Your task to perform on an android device: delete browsing data in the chrome app Image 0: 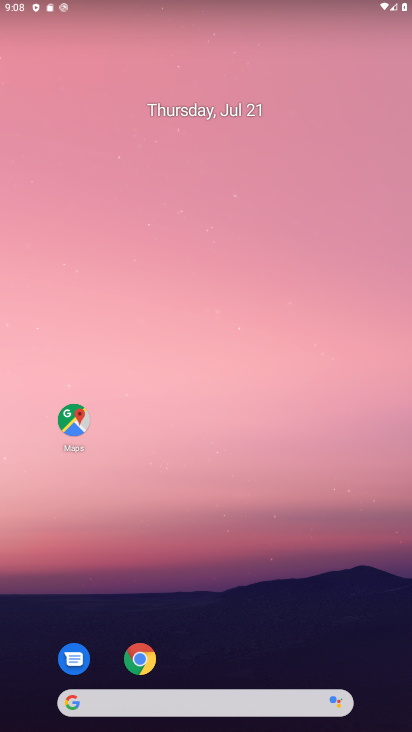
Step 0: drag from (237, 660) to (126, 50)
Your task to perform on an android device: delete browsing data in the chrome app Image 1: 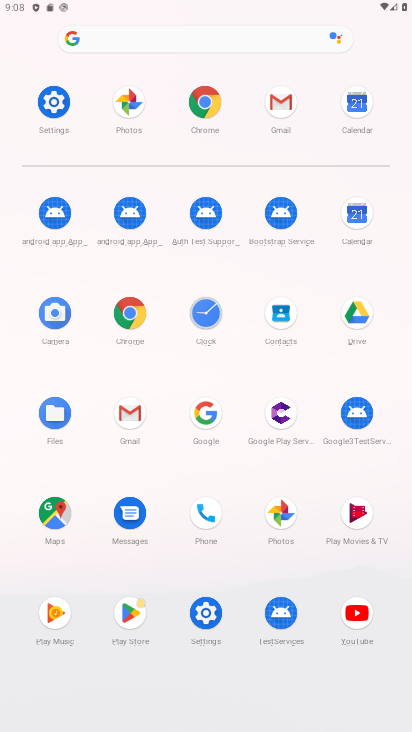
Step 1: click (137, 320)
Your task to perform on an android device: delete browsing data in the chrome app Image 2: 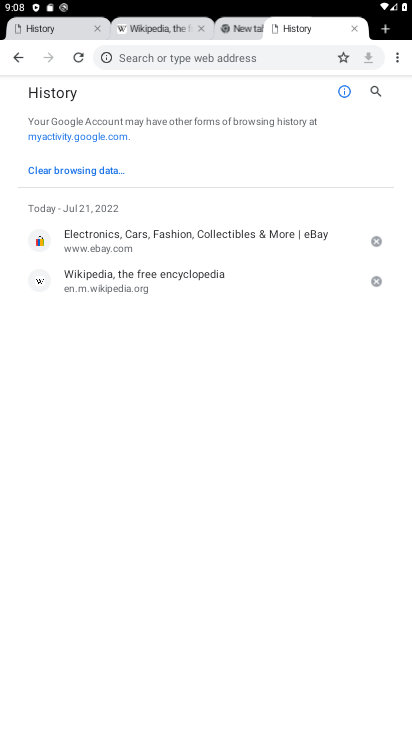
Step 2: drag from (394, 61) to (122, 459)
Your task to perform on an android device: delete browsing data in the chrome app Image 3: 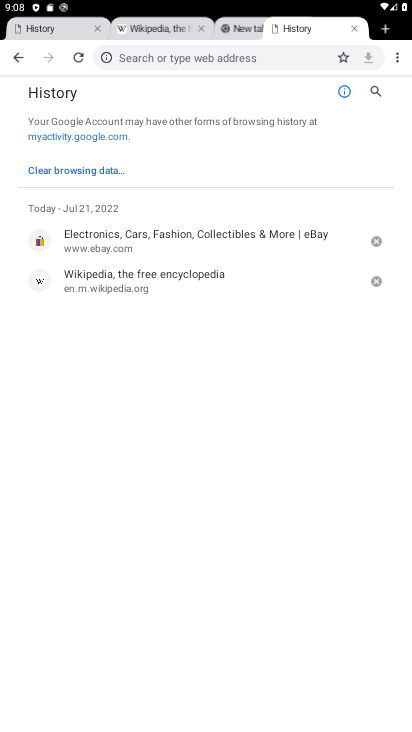
Step 3: click (59, 174)
Your task to perform on an android device: delete browsing data in the chrome app Image 4: 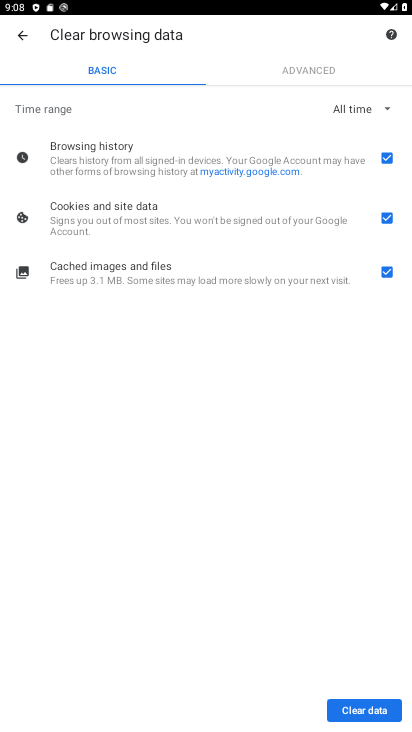
Step 4: click (360, 702)
Your task to perform on an android device: delete browsing data in the chrome app Image 5: 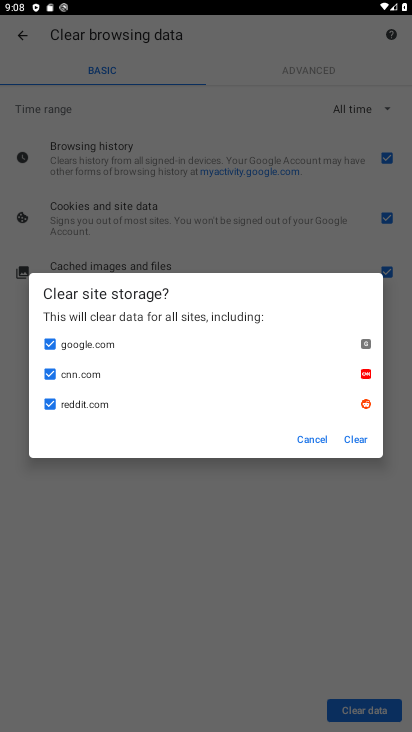
Step 5: click (347, 440)
Your task to perform on an android device: delete browsing data in the chrome app Image 6: 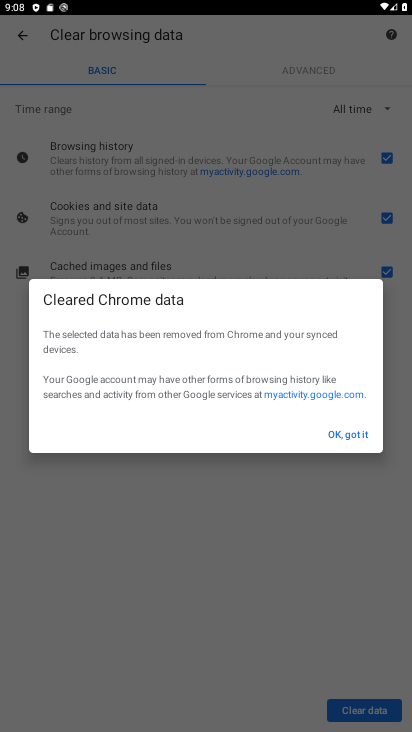
Step 6: click (359, 432)
Your task to perform on an android device: delete browsing data in the chrome app Image 7: 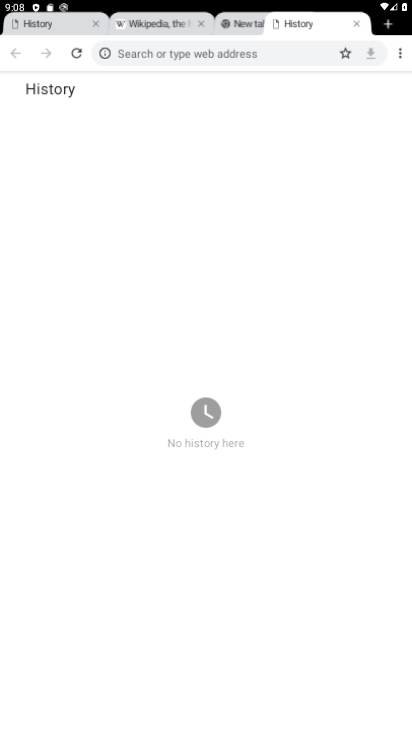
Step 7: task complete